Your task to perform on an android device: turn off picture-in-picture Image 0: 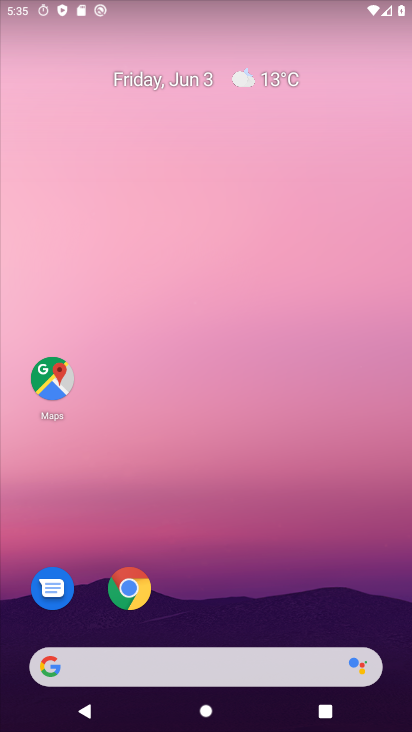
Step 0: drag from (220, 618) to (261, 245)
Your task to perform on an android device: turn off picture-in-picture Image 1: 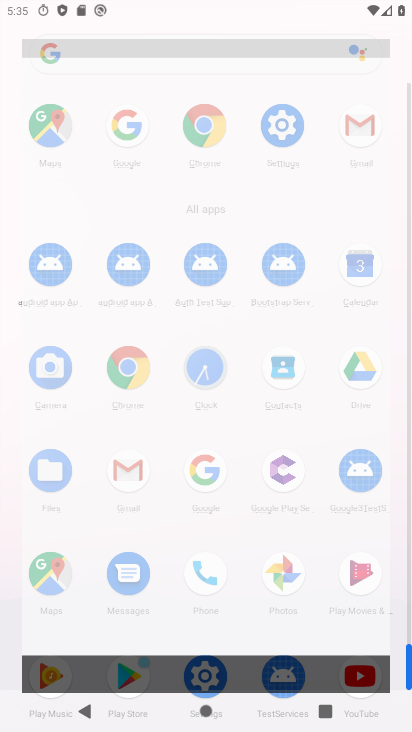
Step 1: click (211, 680)
Your task to perform on an android device: turn off picture-in-picture Image 2: 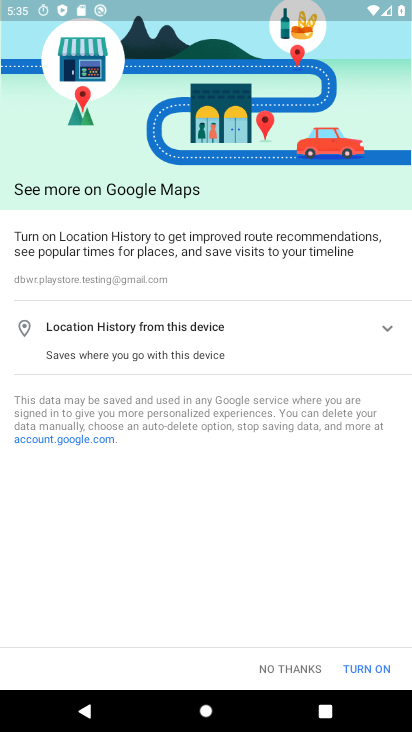
Step 2: press home button
Your task to perform on an android device: turn off picture-in-picture Image 3: 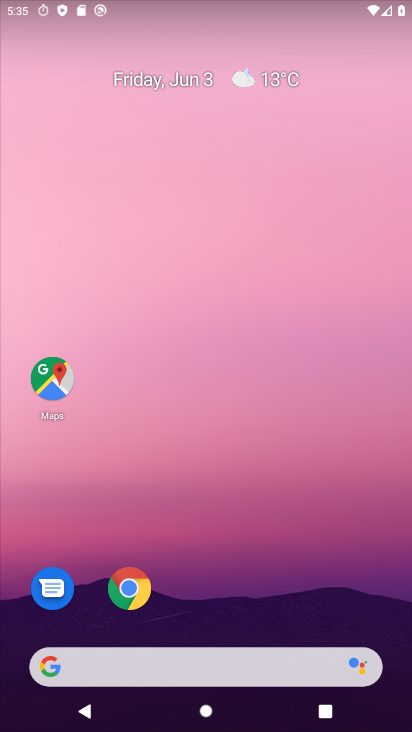
Step 3: drag from (252, 592) to (344, 222)
Your task to perform on an android device: turn off picture-in-picture Image 4: 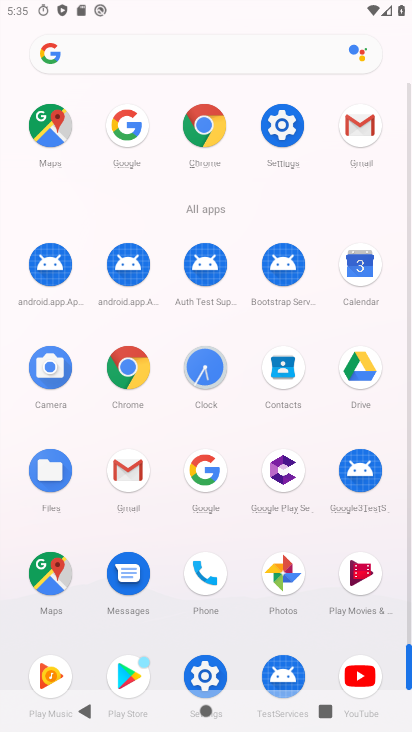
Step 4: click (206, 670)
Your task to perform on an android device: turn off picture-in-picture Image 5: 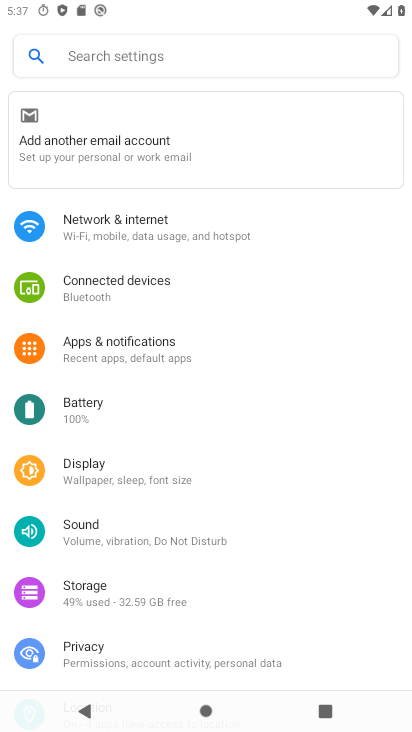
Step 5: click (144, 343)
Your task to perform on an android device: turn off picture-in-picture Image 6: 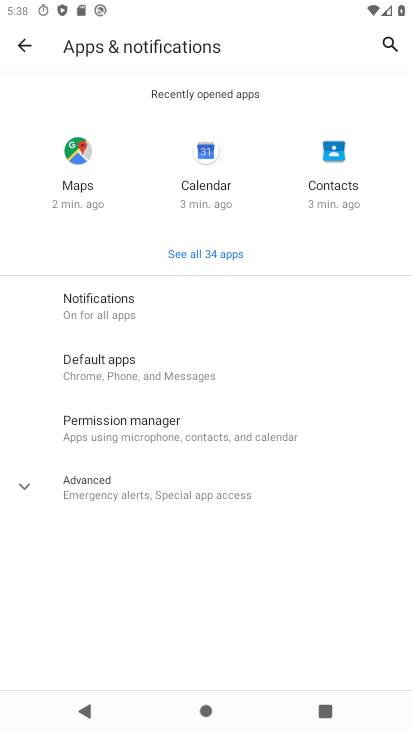
Step 6: click (98, 482)
Your task to perform on an android device: turn off picture-in-picture Image 7: 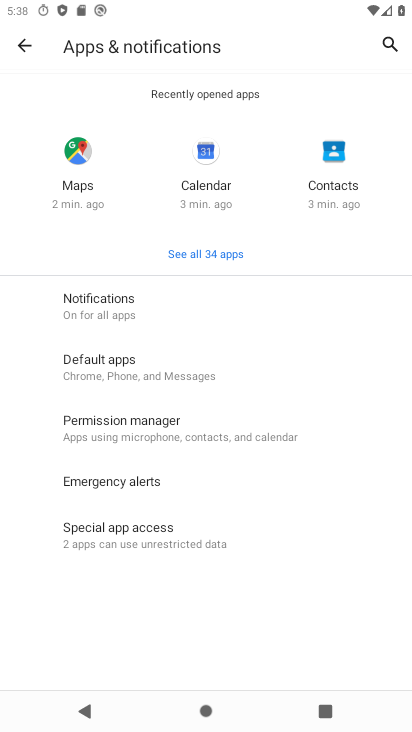
Step 7: click (140, 548)
Your task to perform on an android device: turn off picture-in-picture Image 8: 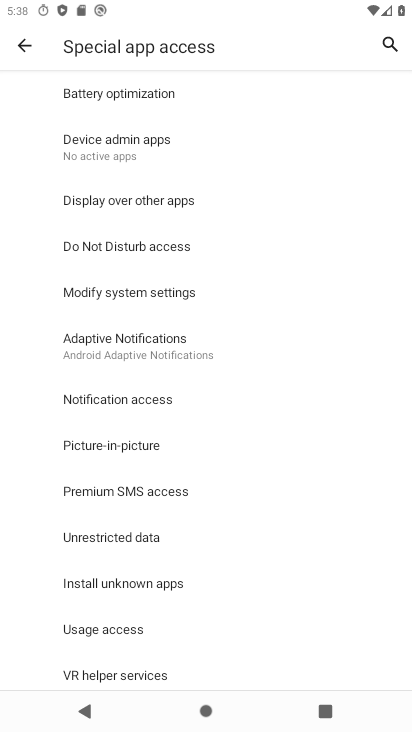
Step 8: drag from (233, 599) to (255, 308)
Your task to perform on an android device: turn off picture-in-picture Image 9: 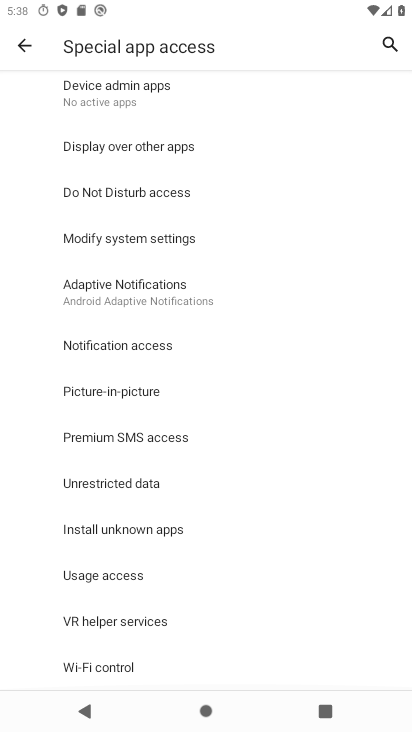
Step 9: drag from (252, 265) to (254, 534)
Your task to perform on an android device: turn off picture-in-picture Image 10: 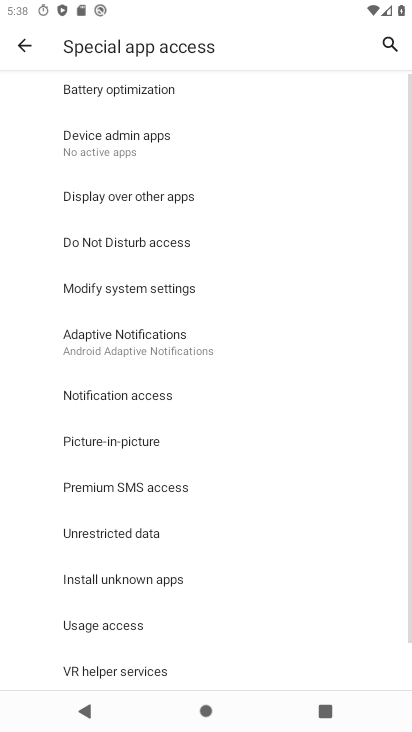
Step 10: click (168, 456)
Your task to perform on an android device: turn off picture-in-picture Image 11: 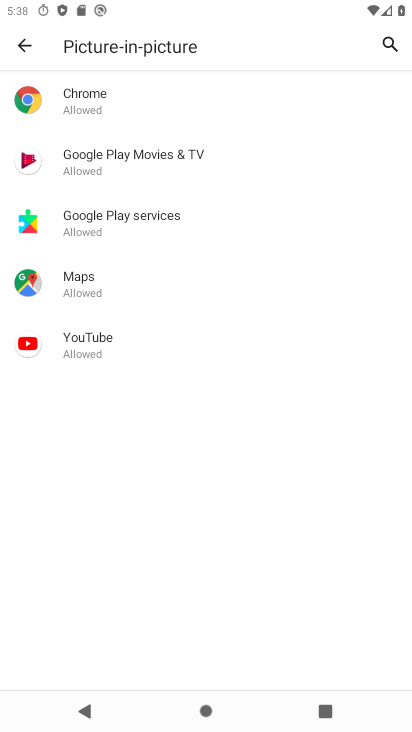
Step 11: click (204, 113)
Your task to perform on an android device: turn off picture-in-picture Image 12: 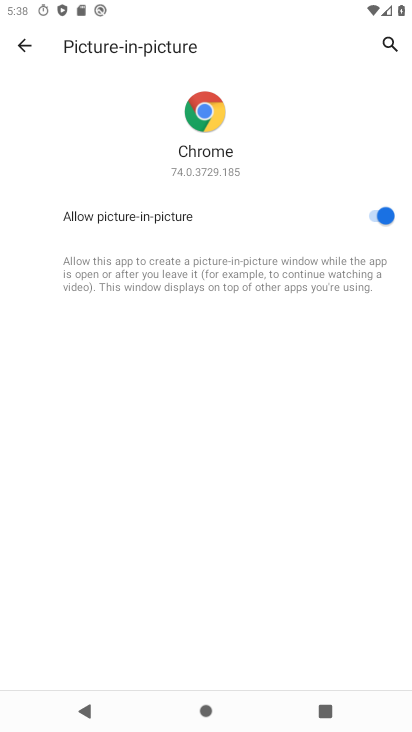
Step 12: click (384, 225)
Your task to perform on an android device: turn off picture-in-picture Image 13: 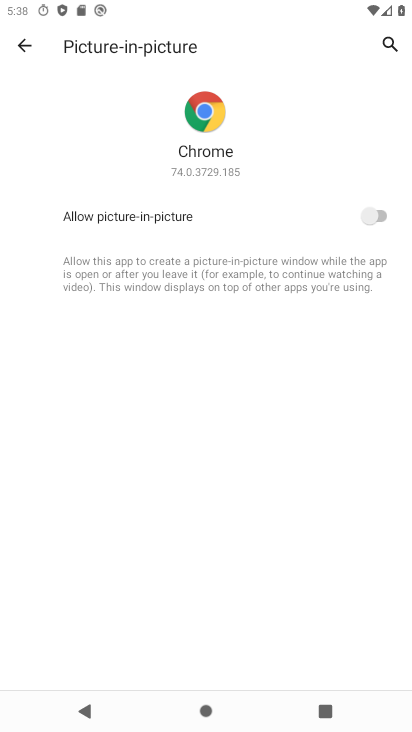
Step 13: task complete